Your task to perform on an android device: What's on my calendar tomorrow? Image 0: 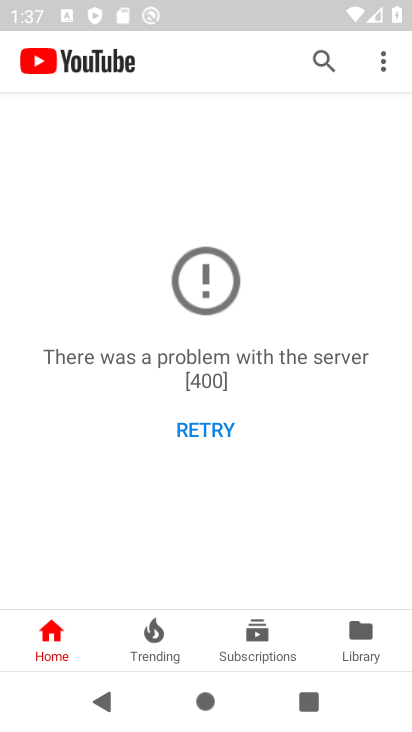
Step 0: press home button
Your task to perform on an android device: What's on my calendar tomorrow? Image 1: 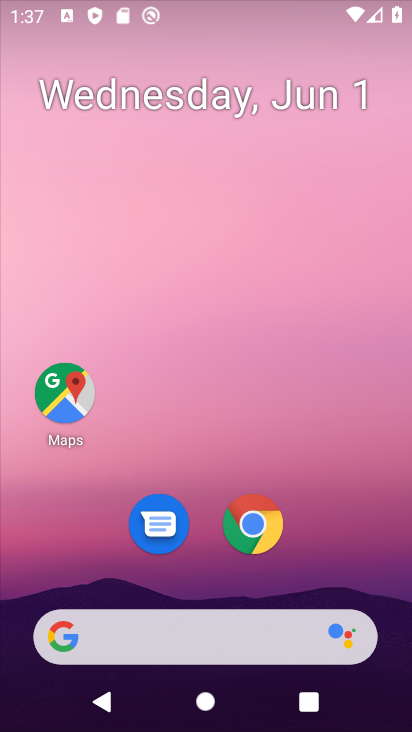
Step 1: drag from (317, 523) to (315, 38)
Your task to perform on an android device: What's on my calendar tomorrow? Image 2: 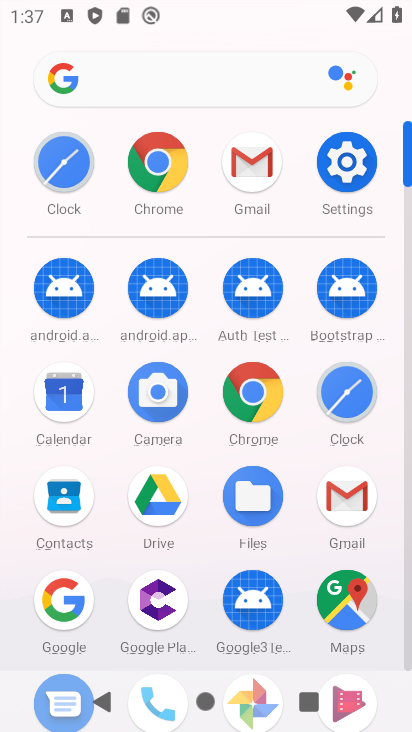
Step 2: click (77, 379)
Your task to perform on an android device: What's on my calendar tomorrow? Image 3: 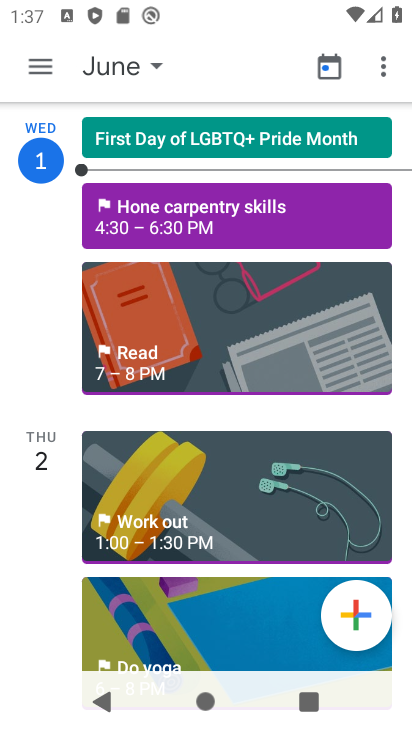
Step 3: task complete